Your task to perform on an android device: Open calendar and show me the fourth week of next month Image 0: 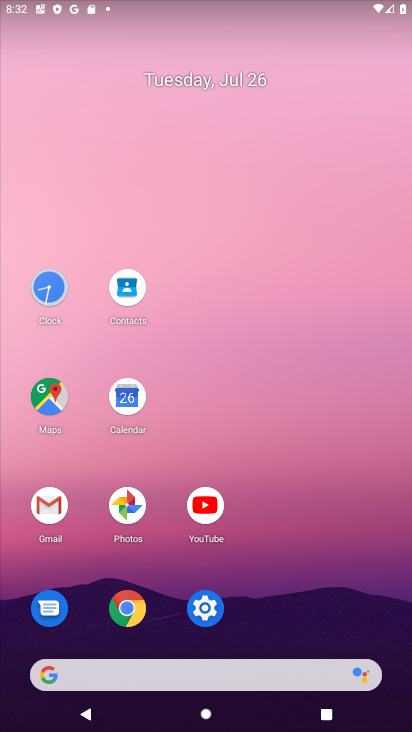
Step 0: click (122, 391)
Your task to perform on an android device: Open calendar and show me the fourth week of next month Image 1: 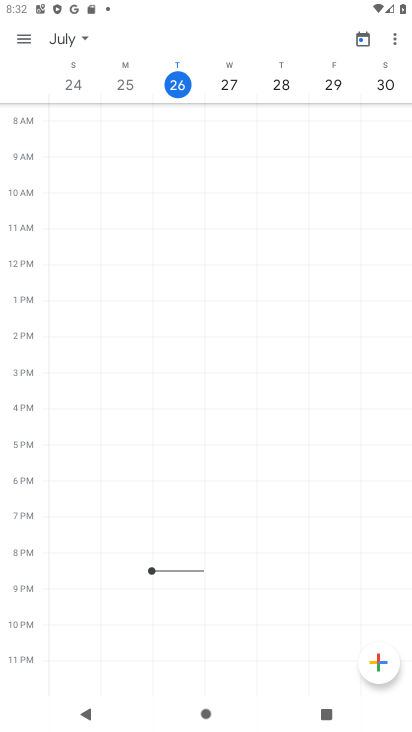
Step 1: click (80, 38)
Your task to perform on an android device: Open calendar and show me the fourth week of next month Image 2: 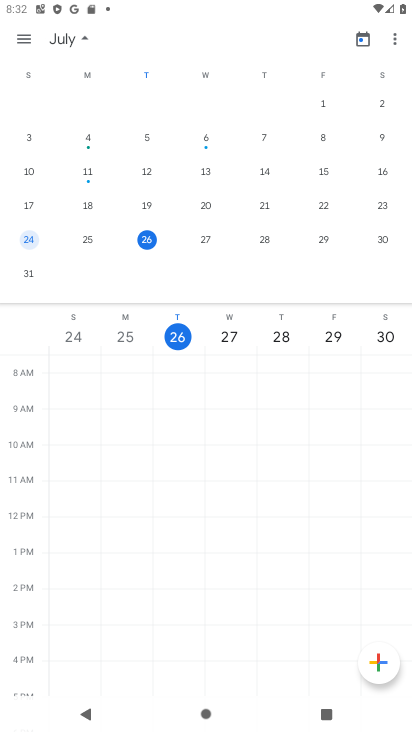
Step 2: drag from (371, 176) to (2, 97)
Your task to perform on an android device: Open calendar and show me the fourth week of next month Image 3: 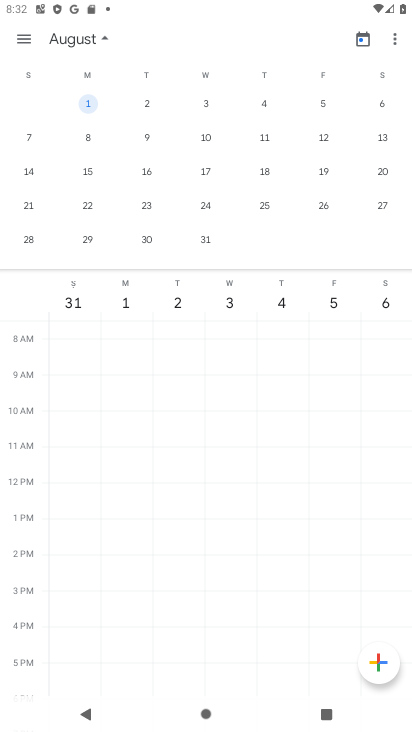
Step 3: click (85, 205)
Your task to perform on an android device: Open calendar and show me the fourth week of next month Image 4: 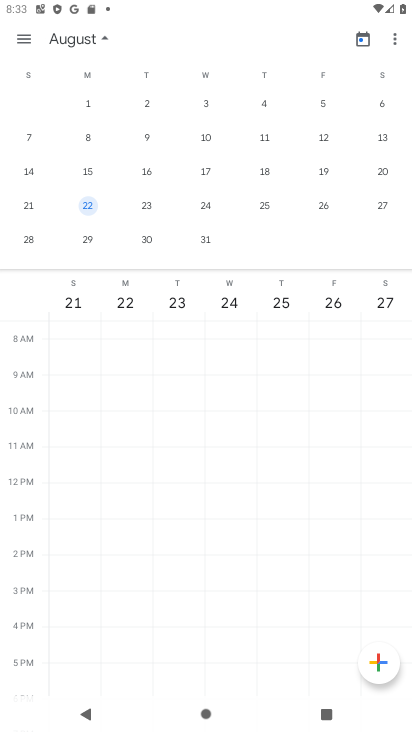
Step 4: task complete